Your task to perform on an android device: allow notifications from all sites in the chrome app Image 0: 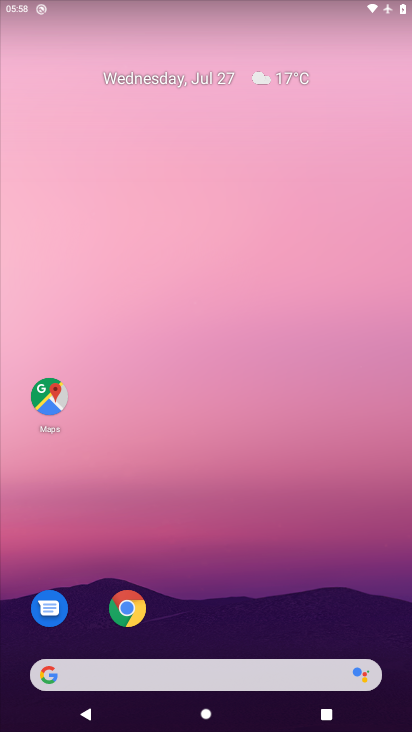
Step 0: press home button
Your task to perform on an android device: allow notifications from all sites in the chrome app Image 1: 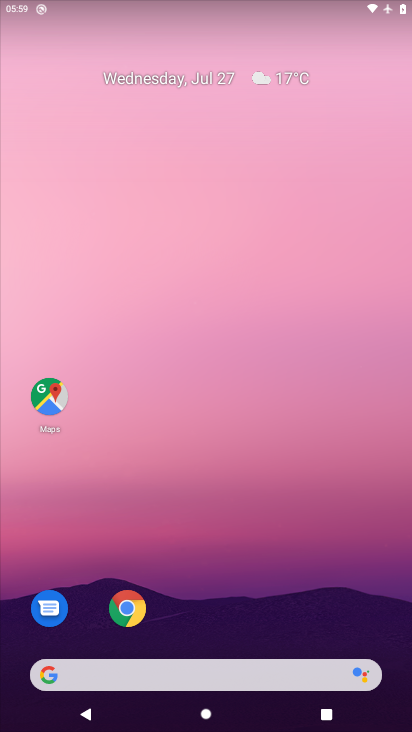
Step 1: drag from (226, 600) to (237, 285)
Your task to perform on an android device: allow notifications from all sites in the chrome app Image 2: 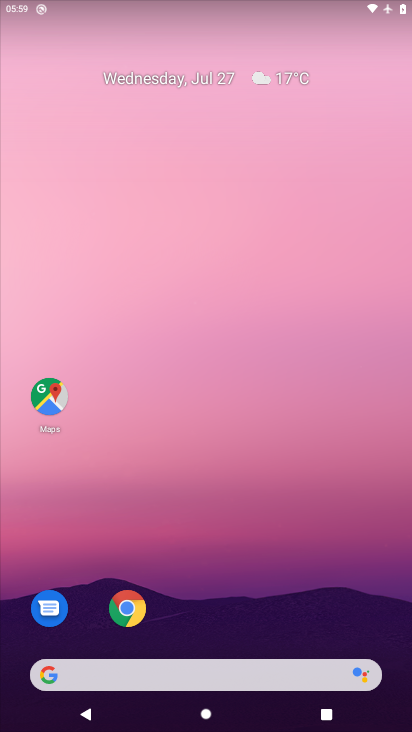
Step 2: drag from (303, 626) to (346, 50)
Your task to perform on an android device: allow notifications from all sites in the chrome app Image 3: 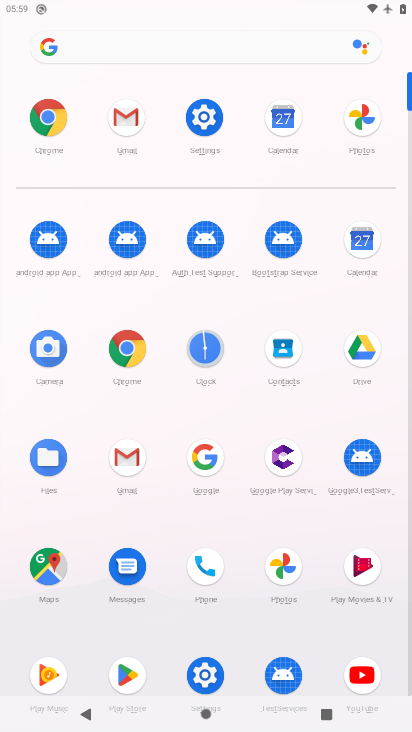
Step 3: click (48, 117)
Your task to perform on an android device: allow notifications from all sites in the chrome app Image 4: 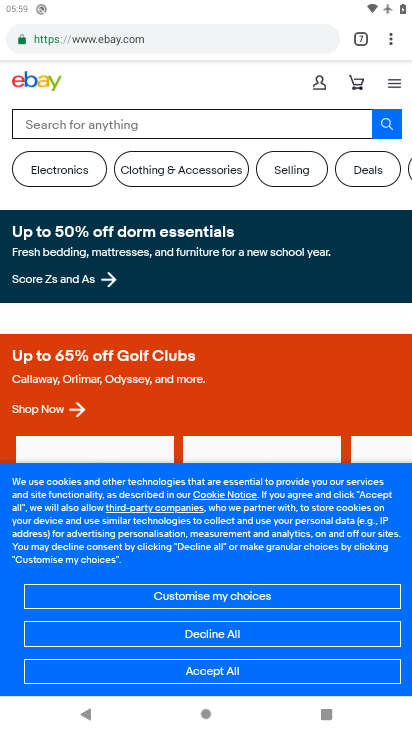
Step 4: click (389, 41)
Your task to perform on an android device: allow notifications from all sites in the chrome app Image 5: 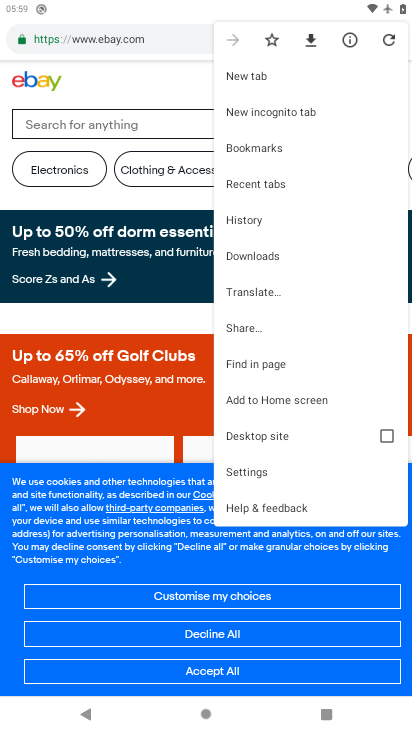
Step 5: click (243, 470)
Your task to perform on an android device: allow notifications from all sites in the chrome app Image 6: 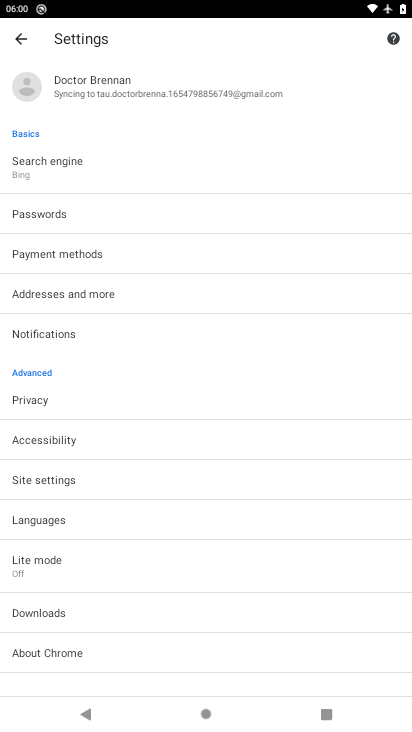
Step 6: click (34, 479)
Your task to perform on an android device: allow notifications from all sites in the chrome app Image 7: 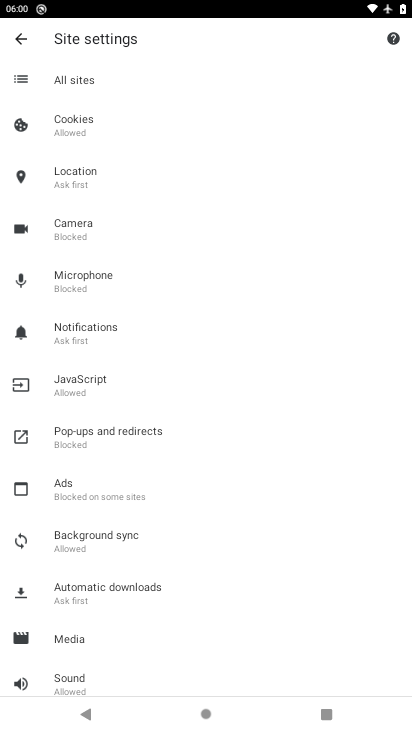
Step 7: click (79, 338)
Your task to perform on an android device: allow notifications from all sites in the chrome app Image 8: 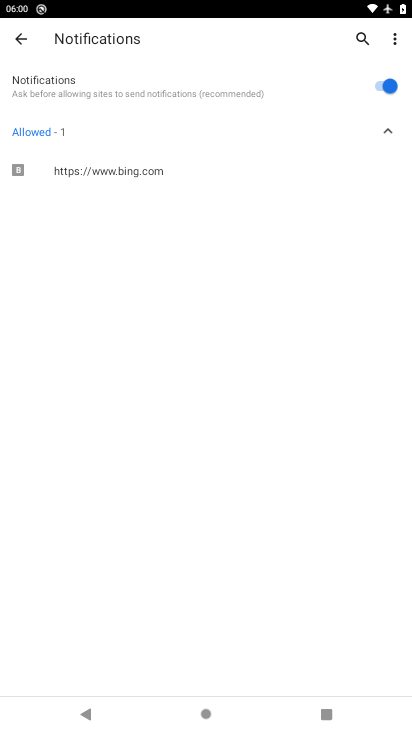
Step 8: task complete